Your task to perform on an android device: see creations saved in the google photos Image 0: 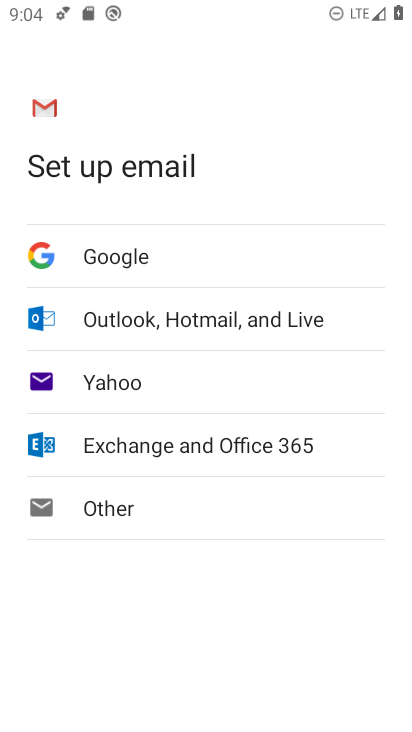
Step 0: press home button
Your task to perform on an android device: see creations saved in the google photos Image 1: 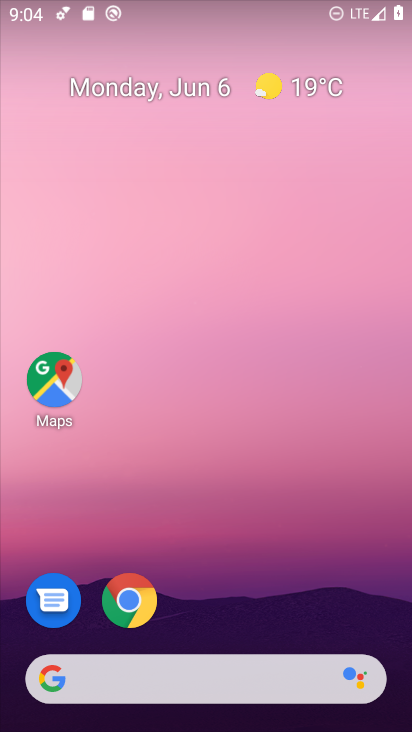
Step 1: drag from (300, 573) to (177, 9)
Your task to perform on an android device: see creations saved in the google photos Image 2: 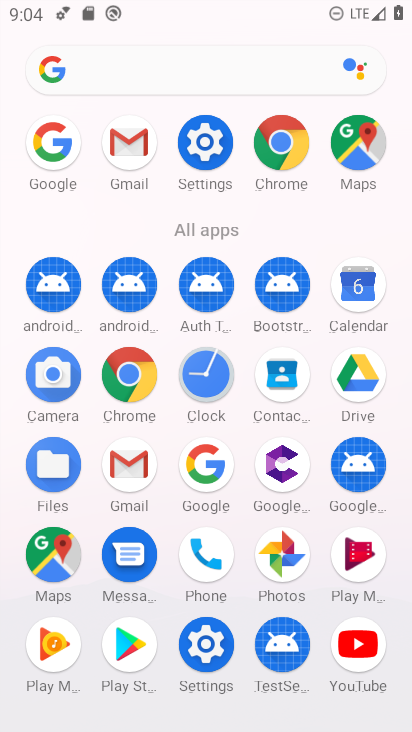
Step 2: click (288, 556)
Your task to perform on an android device: see creations saved in the google photos Image 3: 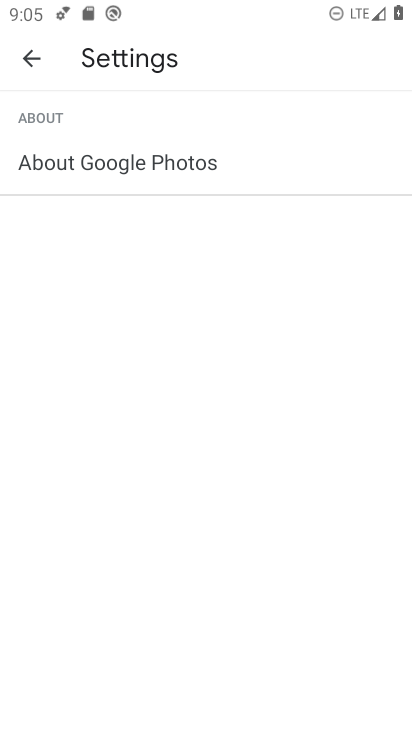
Step 3: click (24, 57)
Your task to perform on an android device: see creations saved in the google photos Image 4: 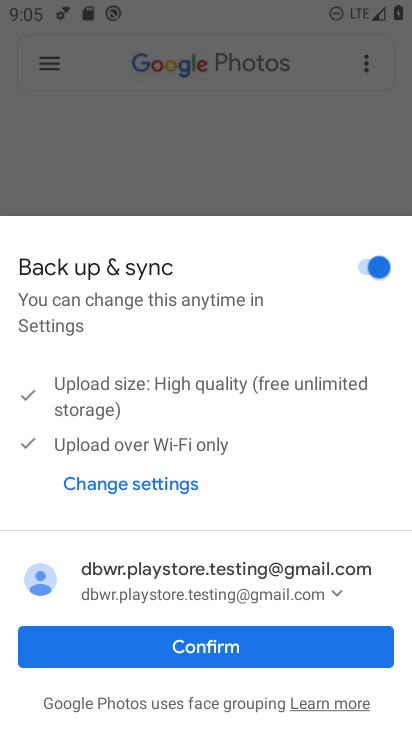
Step 4: click (192, 639)
Your task to perform on an android device: see creations saved in the google photos Image 5: 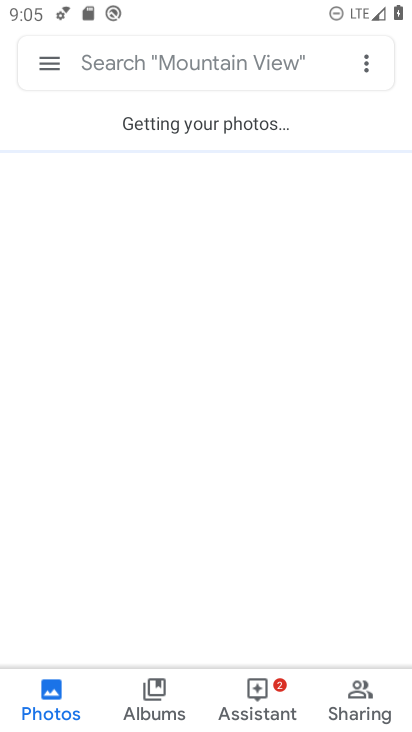
Step 5: click (152, 125)
Your task to perform on an android device: see creations saved in the google photos Image 6: 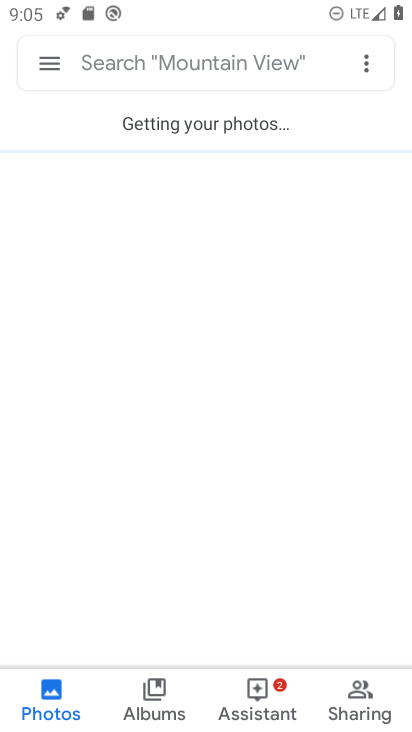
Step 6: click (154, 61)
Your task to perform on an android device: see creations saved in the google photos Image 7: 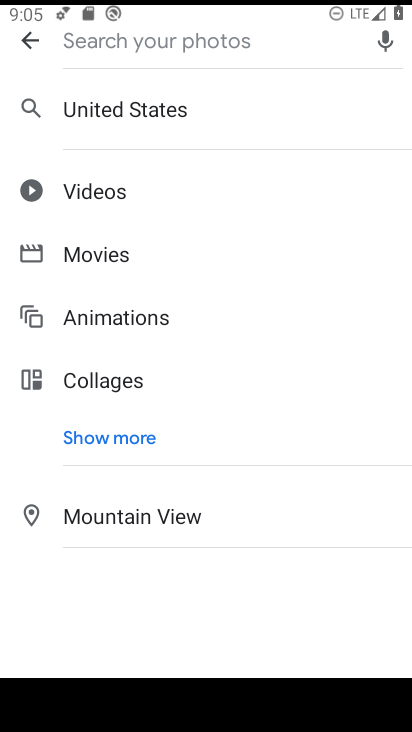
Step 7: type "creations"
Your task to perform on an android device: see creations saved in the google photos Image 8: 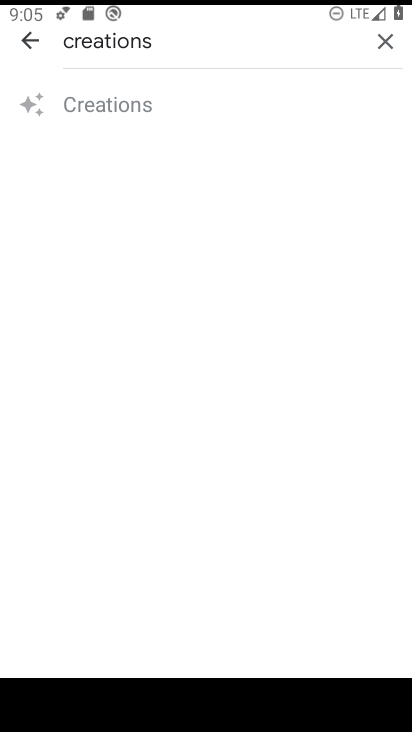
Step 8: click (104, 106)
Your task to perform on an android device: see creations saved in the google photos Image 9: 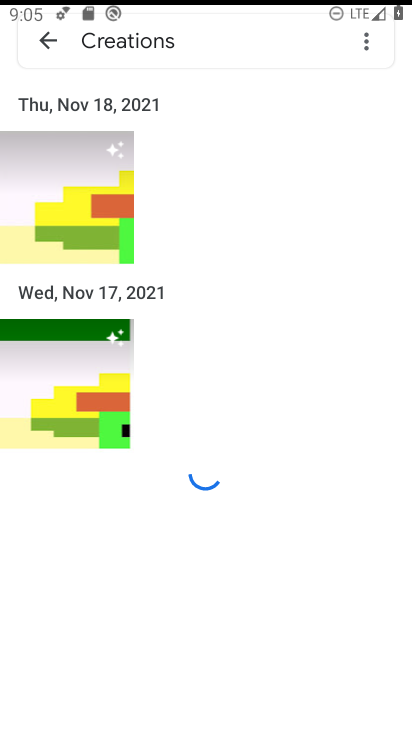
Step 9: task complete